Your task to perform on an android device: toggle javascript in the chrome app Image 0: 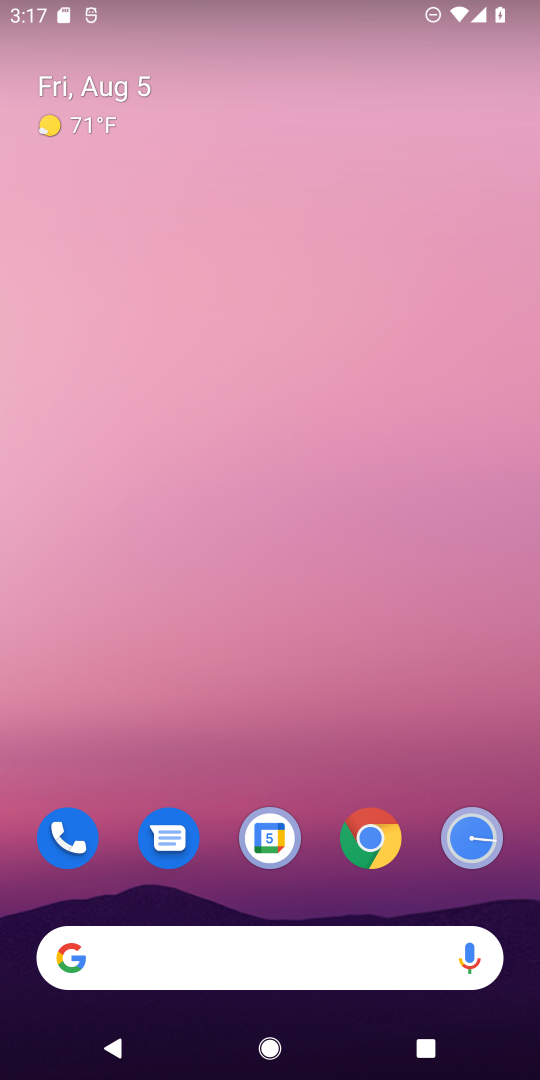
Step 0: drag from (409, 758) to (361, 0)
Your task to perform on an android device: toggle javascript in the chrome app Image 1: 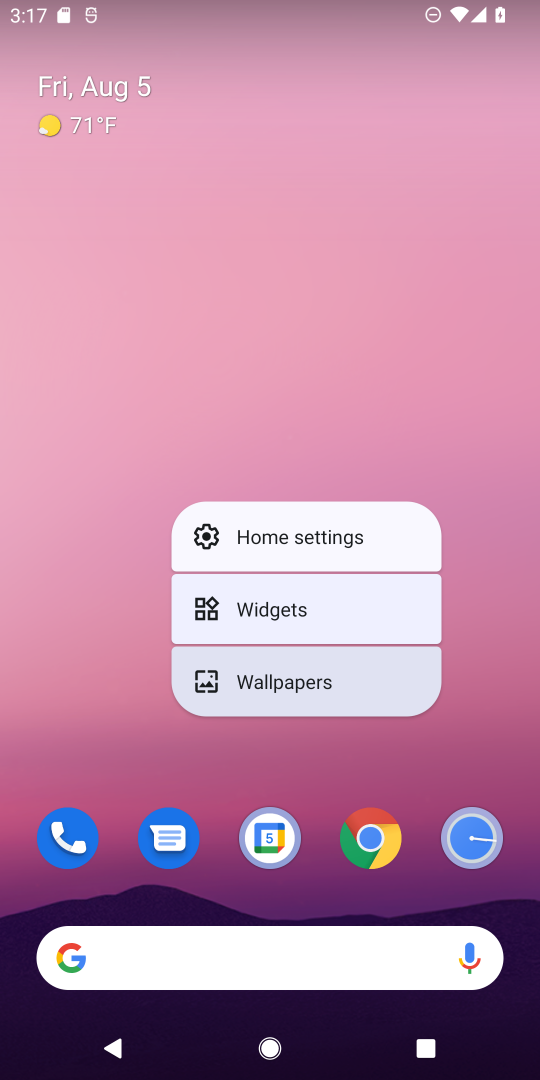
Step 1: drag from (428, 908) to (283, 89)
Your task to perform on an android device: toggle javascript in the chrome app Image 2: 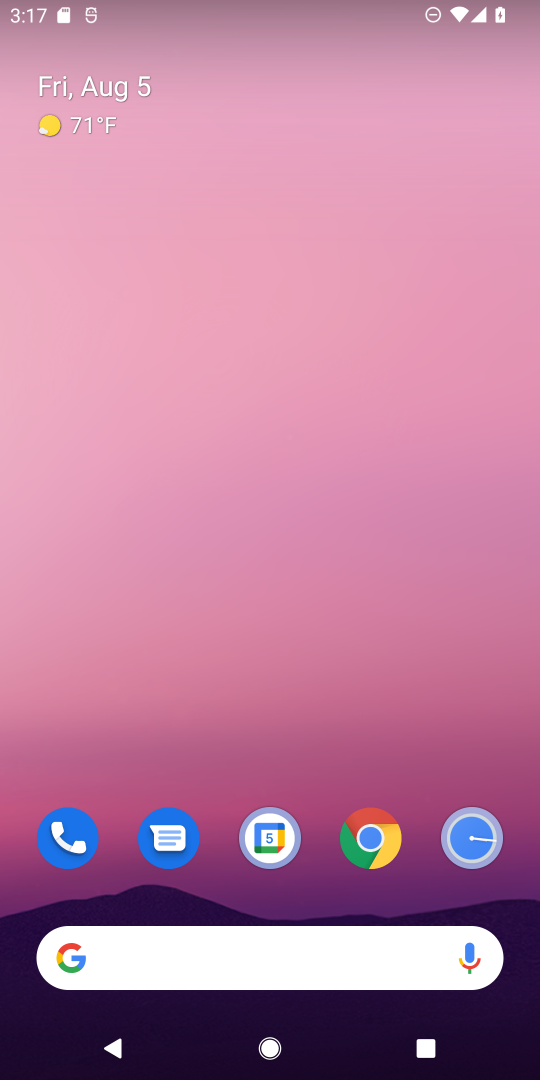
Step 2: drag from (321, 898) to (226, 118)
Your task to perform on an android device: toggle javascript in the chrome app Image 3: 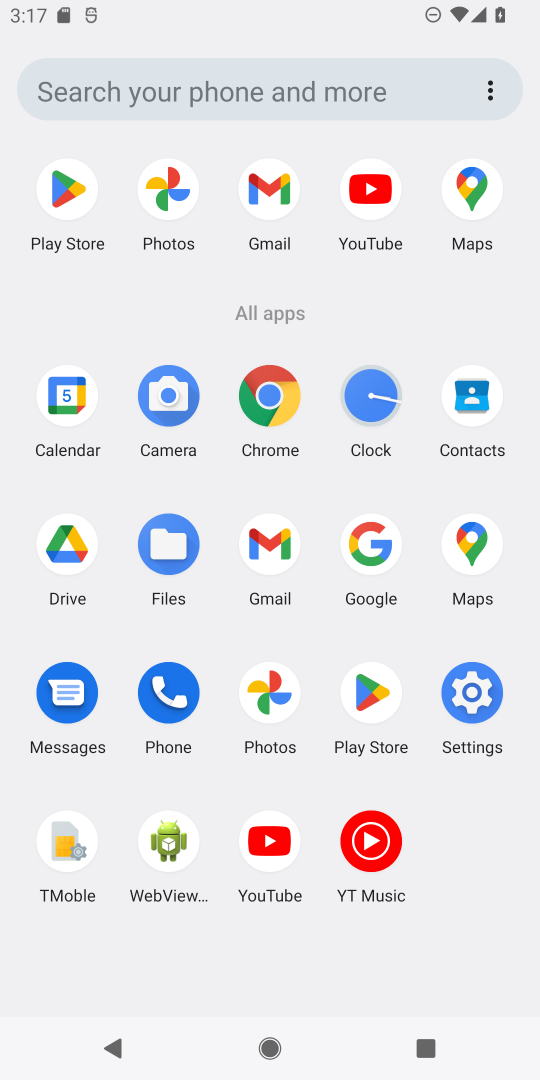
Step 3: click (278, 413)
Your task to perform on an android device: toggle javascript in the chrome app Image 4: 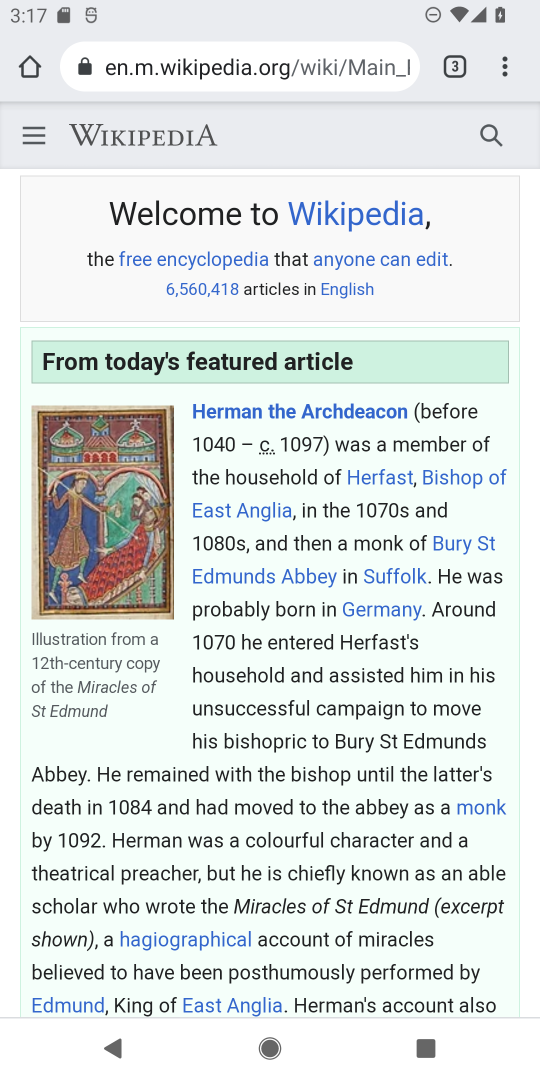
Step 4: click (507, 74)
Your task to perform on an android device: toggle javascript in the chrome app Image 5: 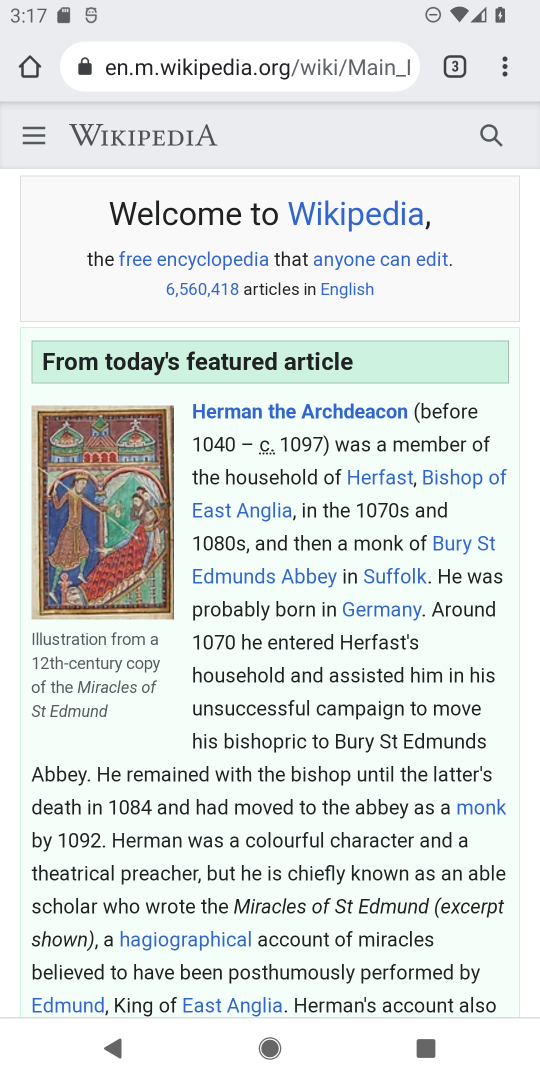
Step 5: click (508, 81)
Your task to perform on an android device: toggle javascript in the chrome app Image 6: 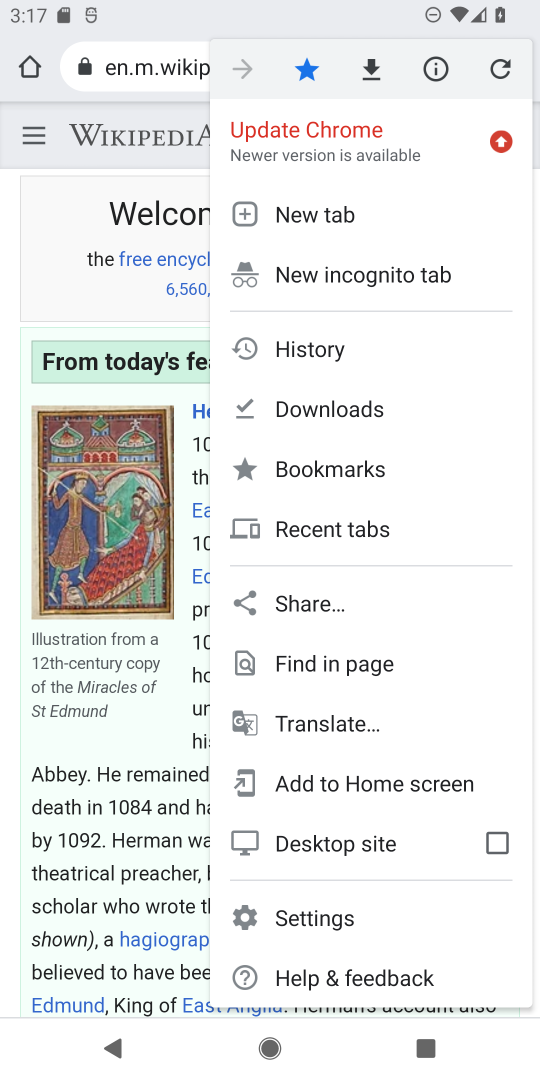
Step 6: click (331, 926)
Your task to perform on an android device: toggle javascript in the chrome app Image 7: 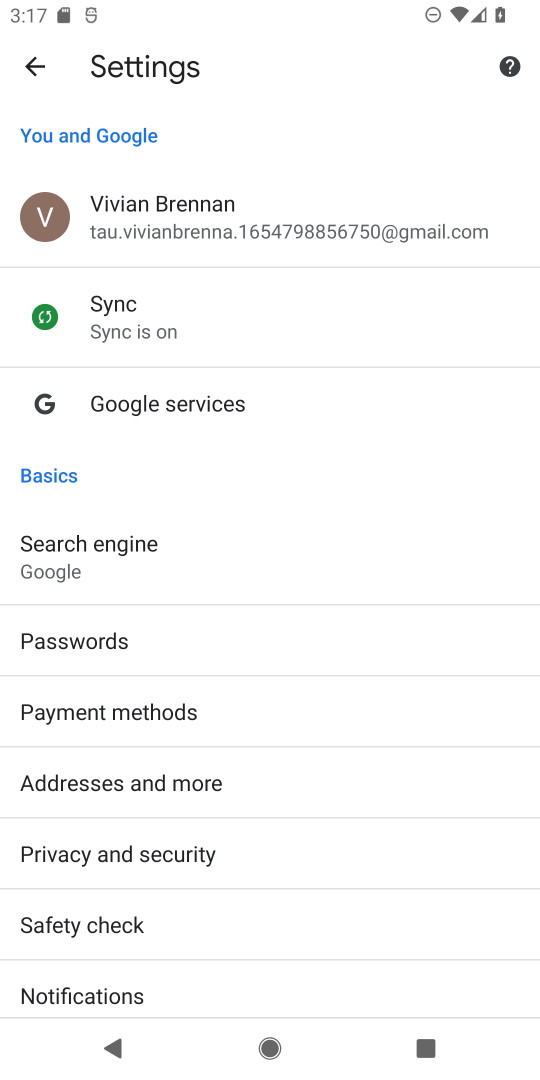
Step 7: drag from (348, 991) to (306, 386)
Your task to perform on an android device: toggle javascript in the chrome app Image 8: 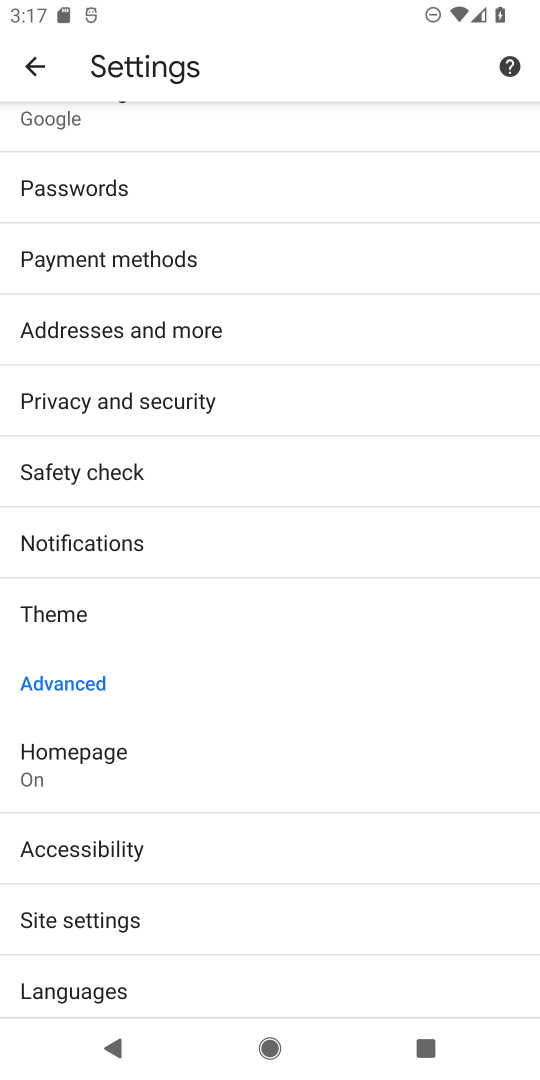
Step 8: click (305, 929)
Your task to perform on an android device: toggle javascript in the chrome app Image 9: 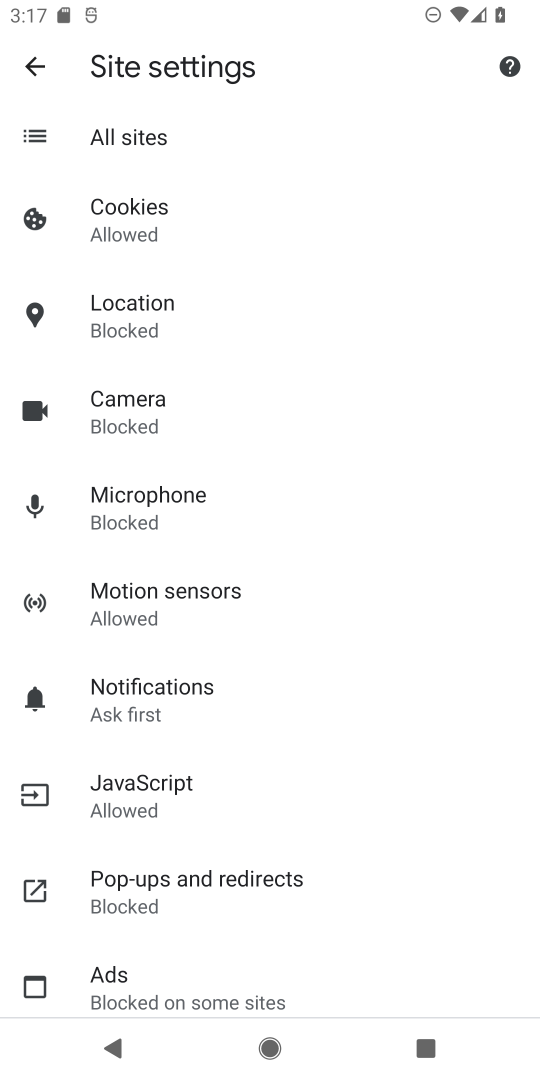
Step 9: click (241, 811)
Your task to perform on an android device: toggle javascript in the chrome app Image 10: 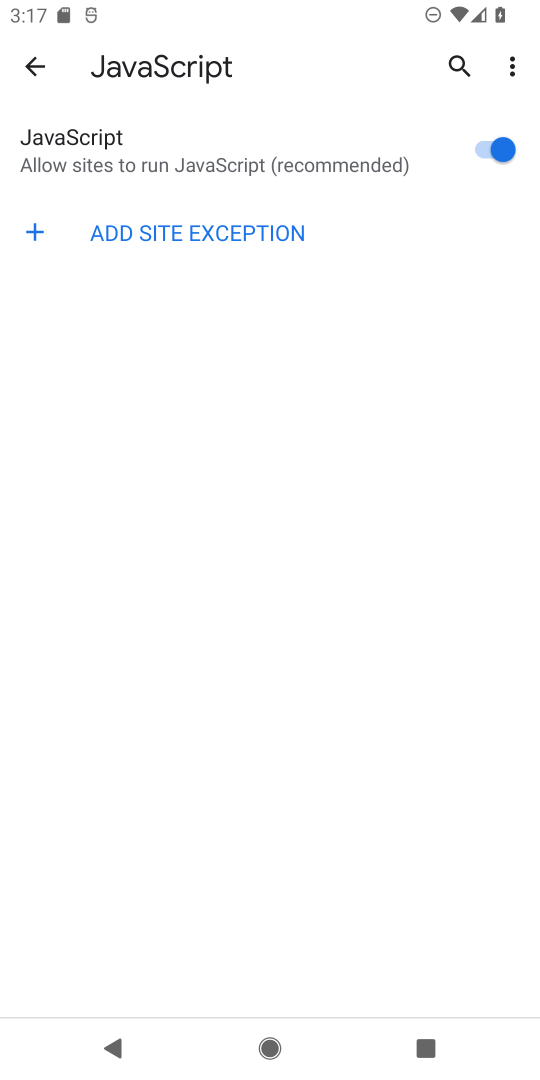
Step 10: click (489, 159)
Your task to perform on an android device: toggle javascript in the chrome app Image 11: 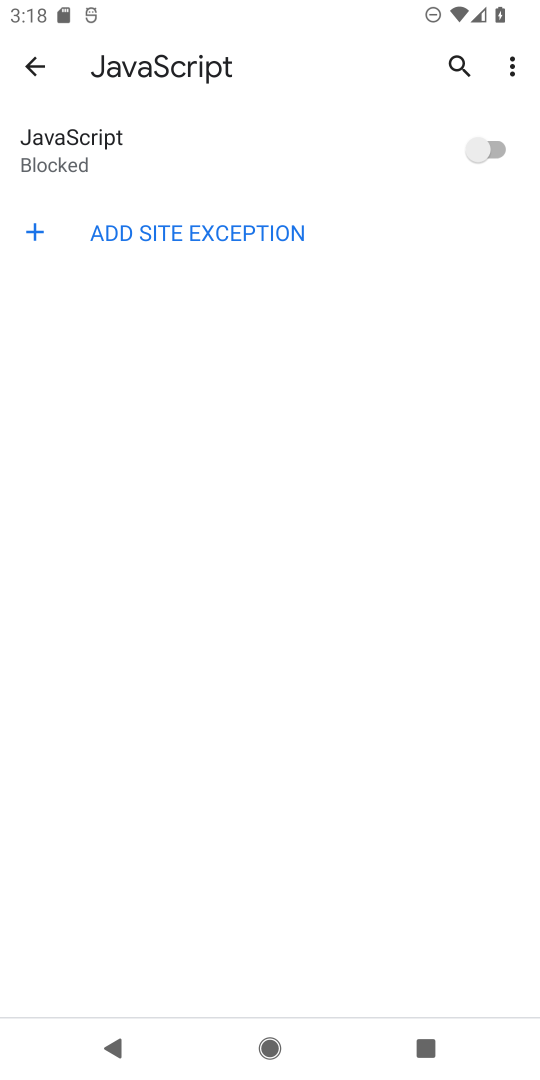
Step 11: task complete